Your task to perform on an android device: Go to battery settings Image 0: 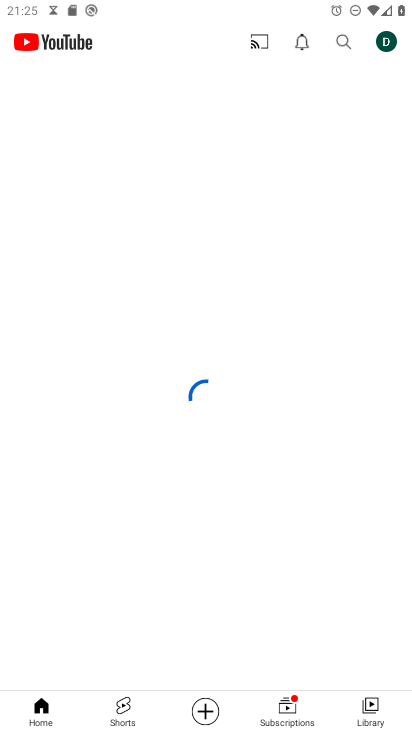
Step 0: drag from (172, 643) to (191, 321)
Your task to perform on an android device: Go to battery settings Image 1: 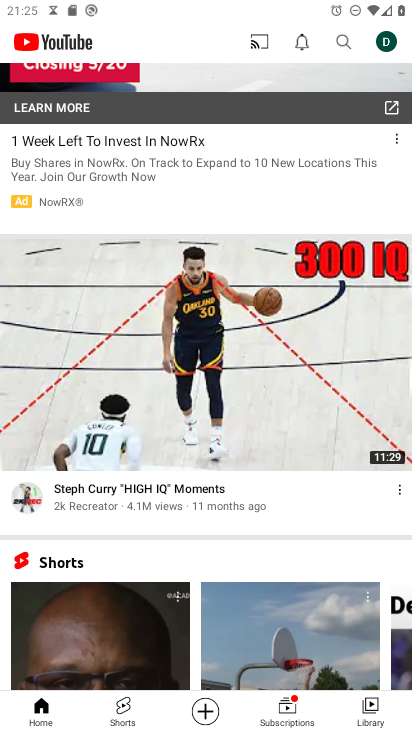
Step 1: press home button
Your task to perform on an android device: Go to battery settings Image 2: 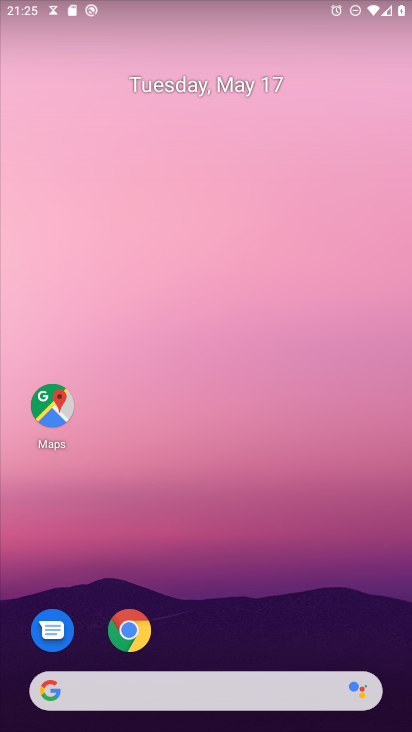
Step 2: drag from (170, 636) to (129, 175)
Your task to perform on an android device: Go to battery settings Image 3: 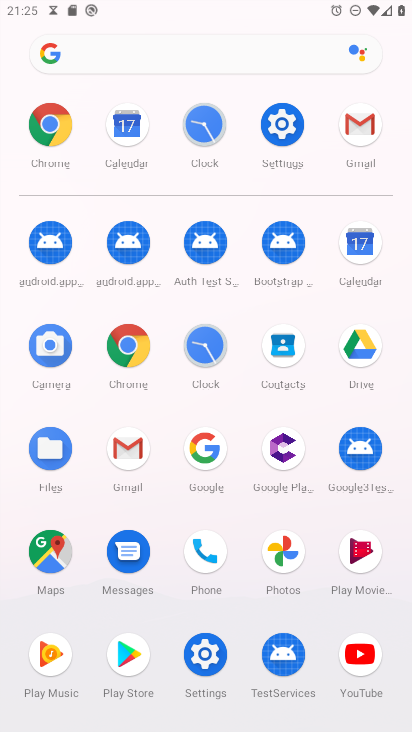
Step 3: click (198, 651)
Your task to perform on an android device: Go to battery settings Image 4: 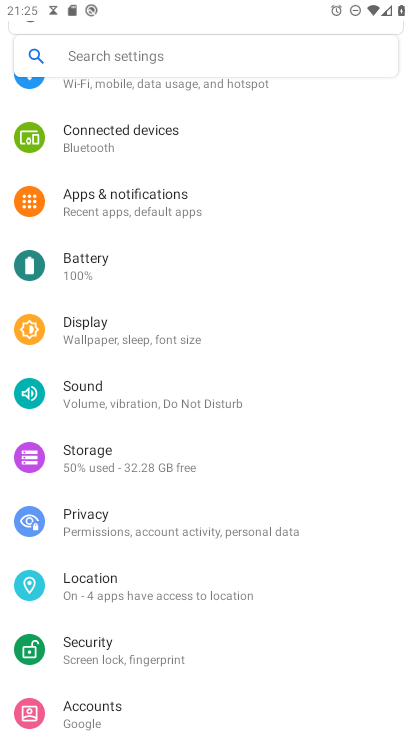
Step 4: click (52, 249)
Your task to perform on an android device: Go to battery settings Image 5: 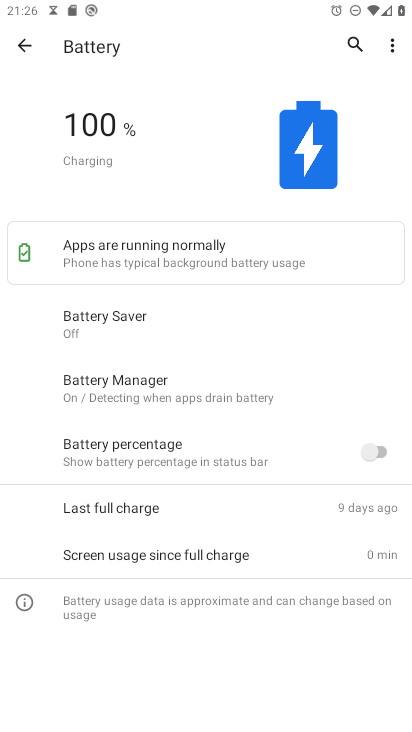
Step 5: task complete